Your task to perform on an android device: Show me recent news Image 0: 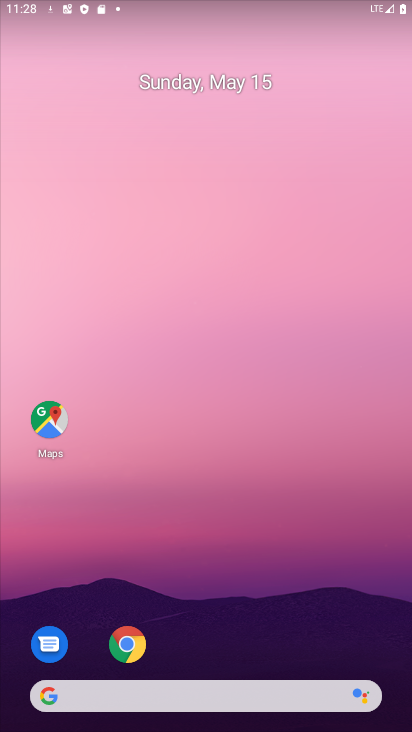
Step 0: drag from (226, 706) to (239, 171)
Your task to perform on an android device: Show me recent news Image 1: 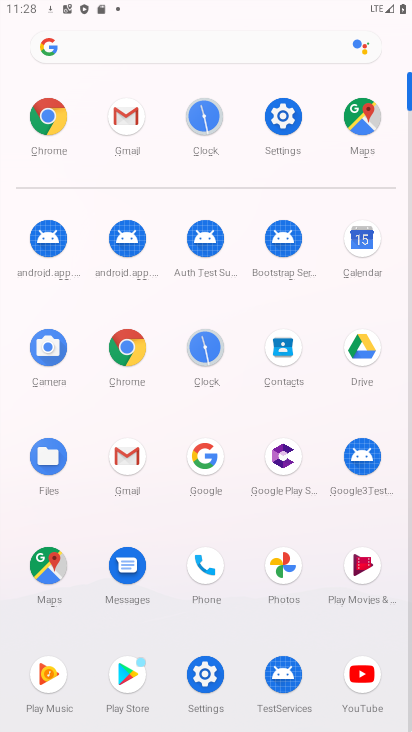
Step 1: click (115, 60)
Your task to perform on an android device: Show me recent news Image 2: 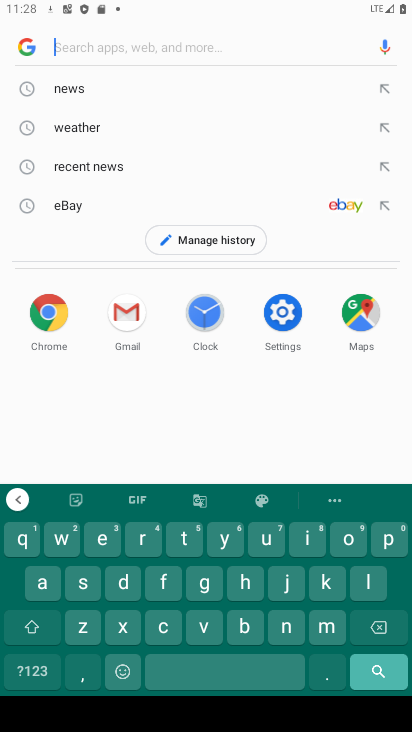
Step 2: click (103, 167)
Your task to perform on an android device: Show me recent news Image 3: 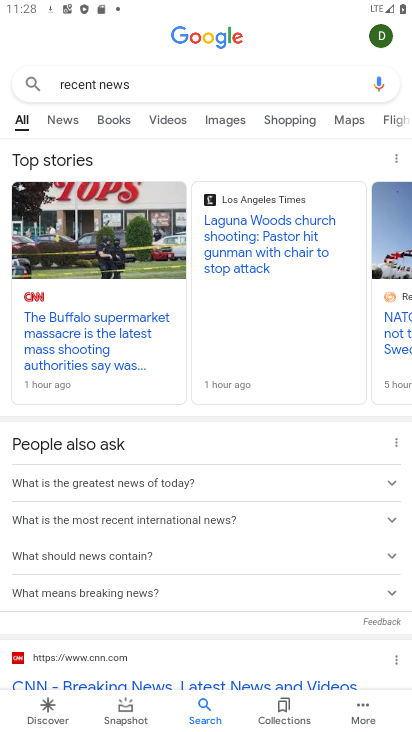
Step 3: task complete